Your task to perform on an android device: Check the weather Image 0: 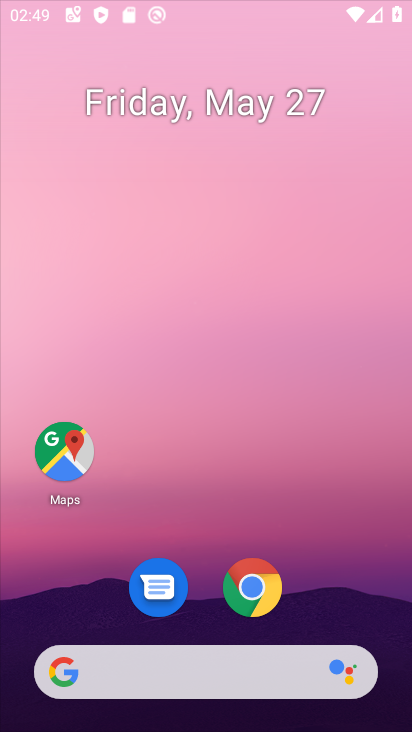
Step 0: press home button
Your task to perform on an android device: Check the weather Image 1: 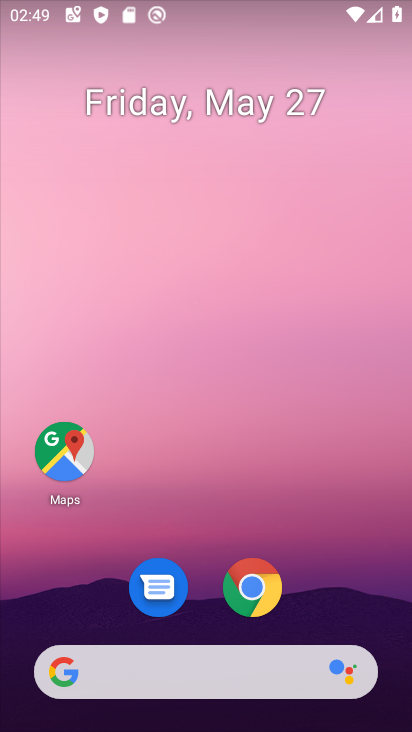
Step 1: click (47, 680)
Your task to perform on an android device: Check the weather Image 2: 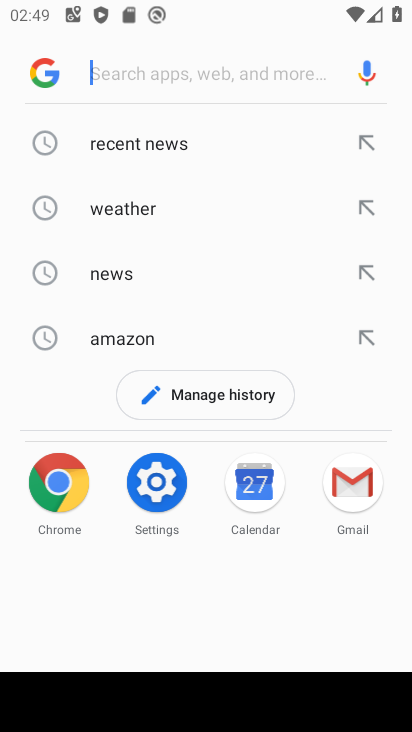
Step 2: click (118, 214)
Your task to perform on an android device: Check the weather Image 3: 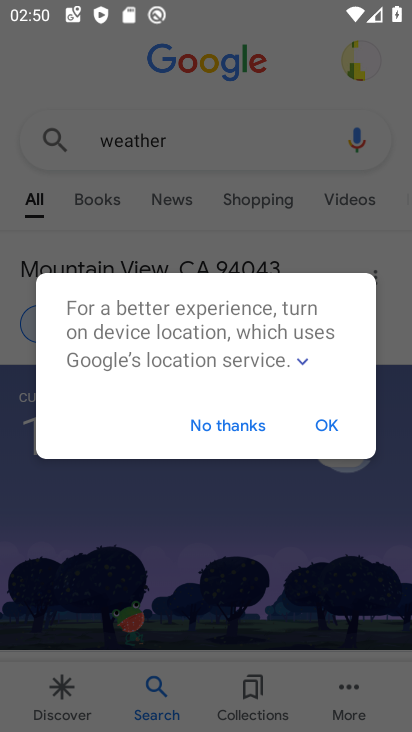
Step 3: click (215, 422)
Your task to perform on an android device: Check the weather Image 4: 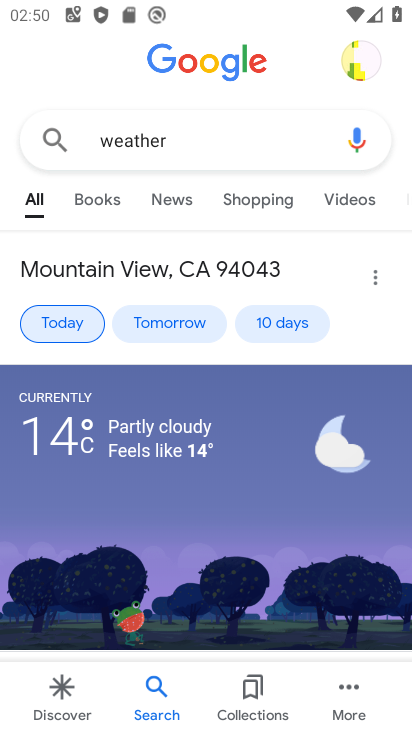
Step 4: task complete